Your task to perform on an android device: open app "Expedia: Hotels, Flights & Car" Image 0: 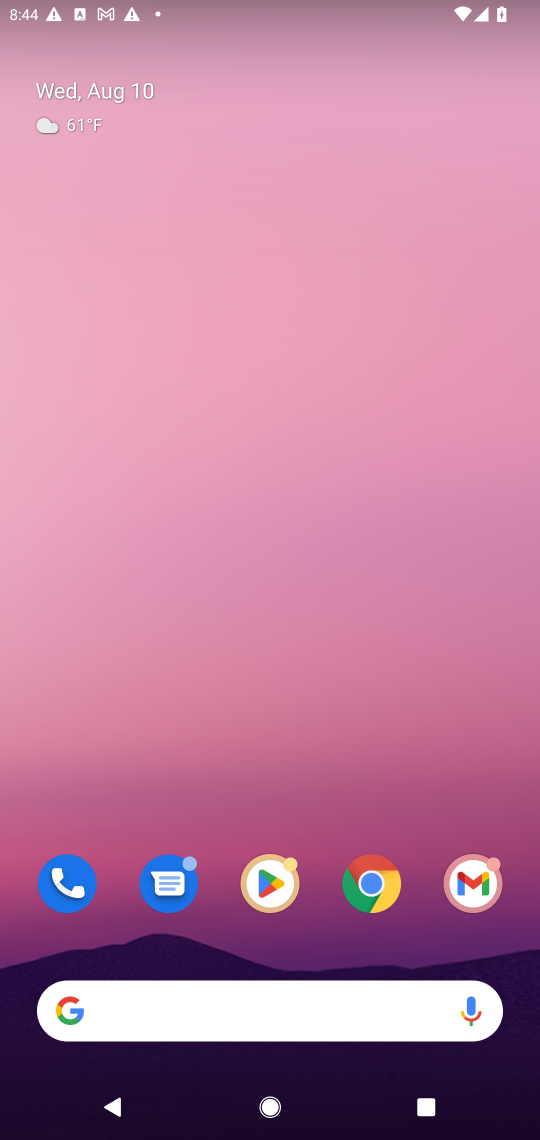
Step 0: click (250, 901)
Your task to perform on an android device: open app "Expedia: Hotels, Flights & Car" Image 1: 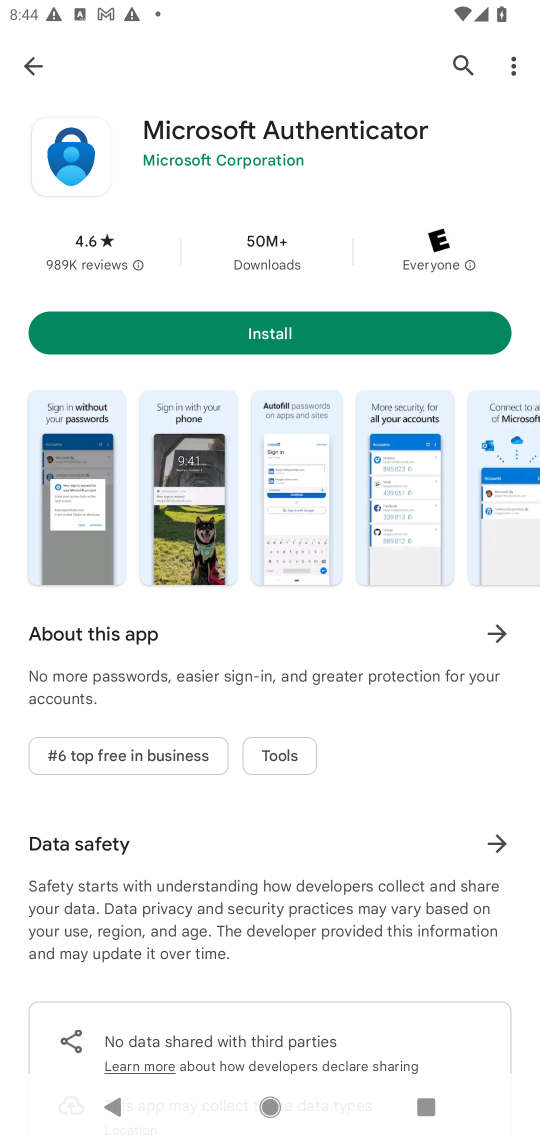
Step 1: click (479, 63)
Your task to perform on an android device: open app "Expedia: Hotels, Flights & Car" Image 2: 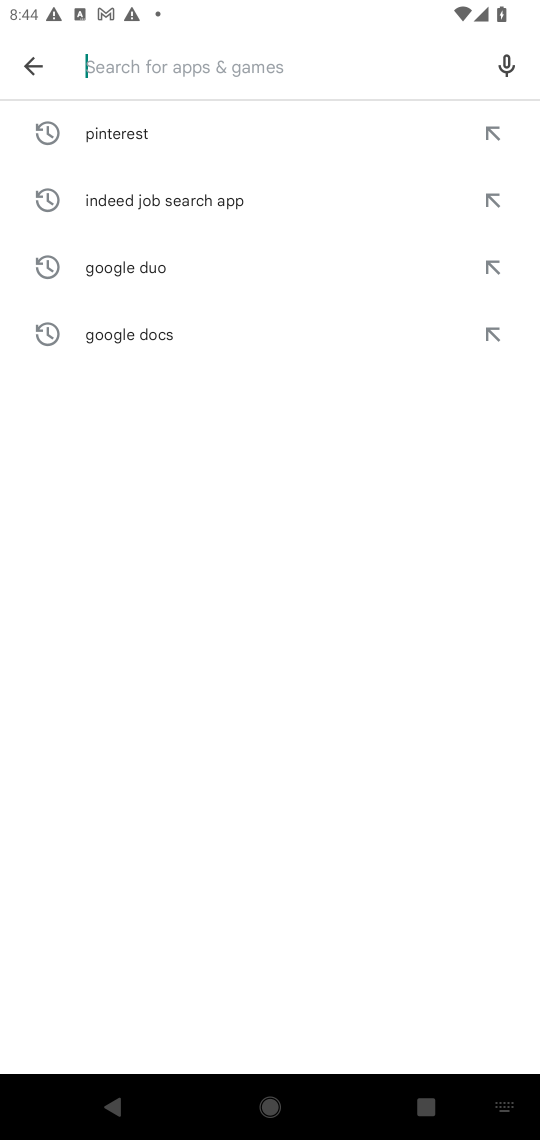
Step 2: type "Expedia: Hotels, Flights & Car"
Your task to perform on an android device: open app "Expedia: Hotels, Flights & Car" Image 3: 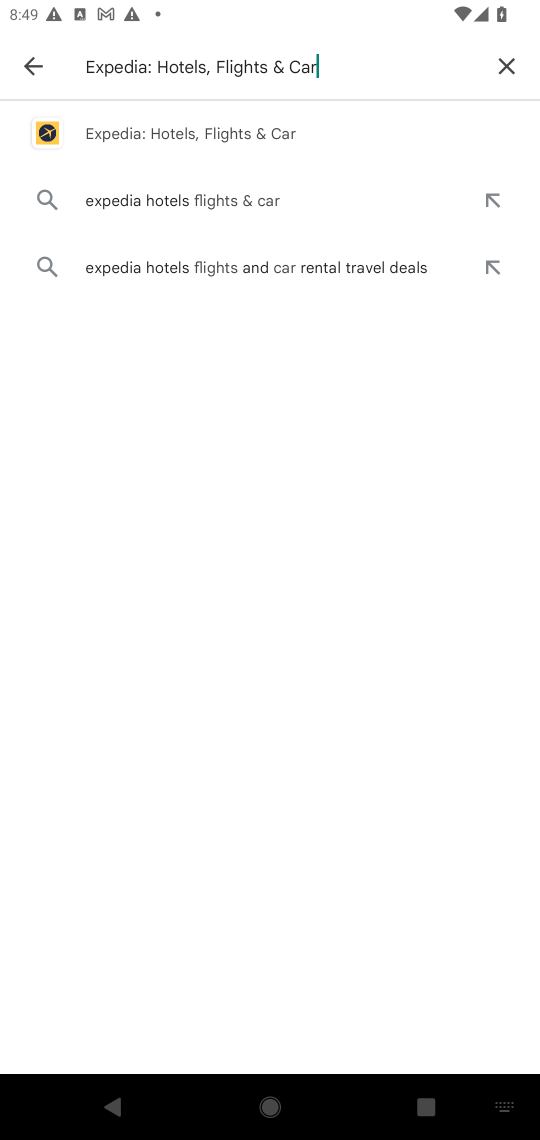
Step 3: press home button
Your task to perform on an android device: open app "Expedia: Hotels, Flights & Car" Image 4: 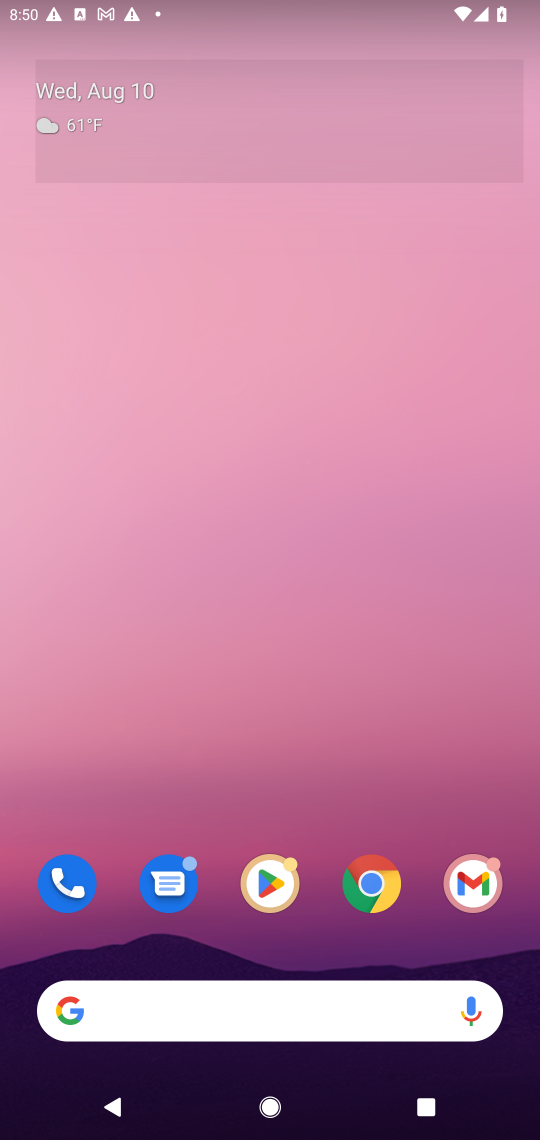
Step 4: click (269, 897)
Your task to perform on an android device: open app "Expedia: Hotels, Flights & Car" Image 5: 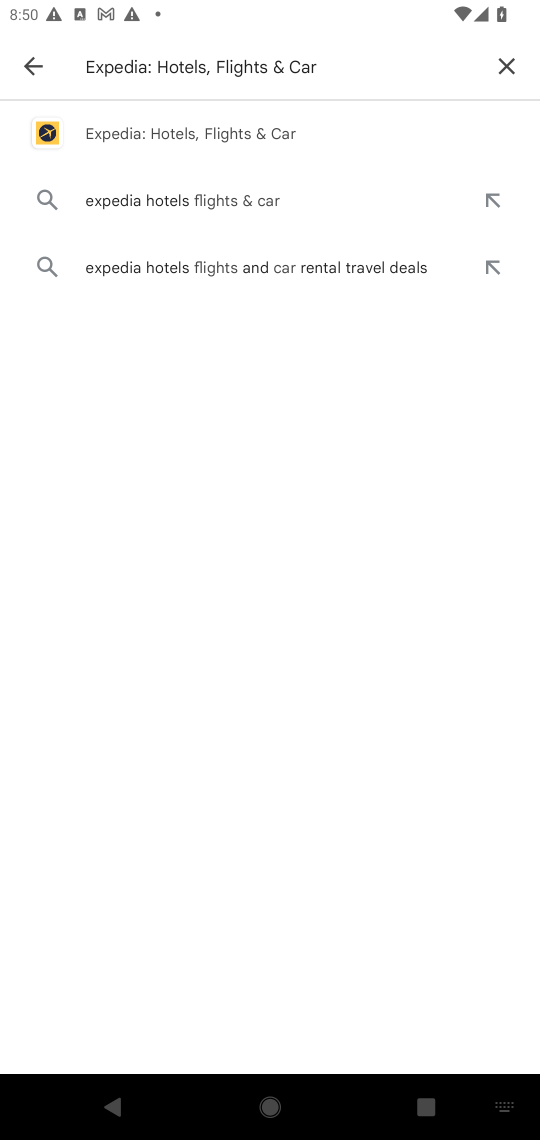
Step 5: click (311, 121)
Your task to perform on an android device: open app "Expedia: Hotels, Flights & Car" Image 6: 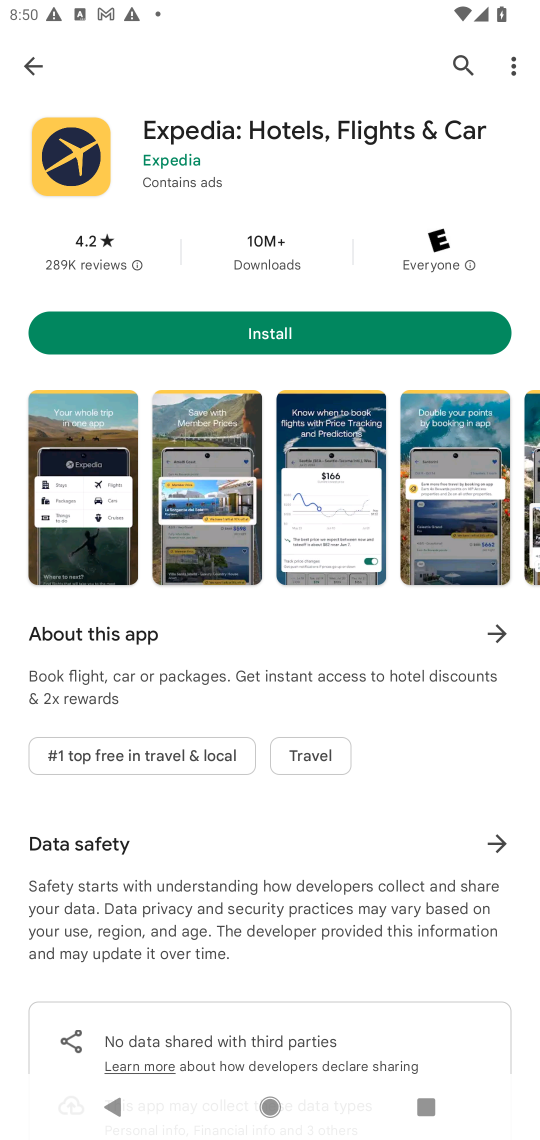
Step 6: task complete